Your task to perform on an android device: turn off airplane mode Image 0: 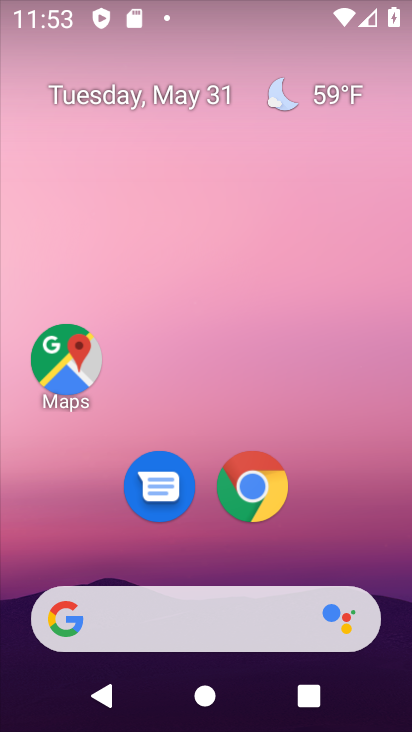
Step 0: drag from (114, 400) to (195, 173)
Your task to perform on an android device: turn off airplane mode Image 1: 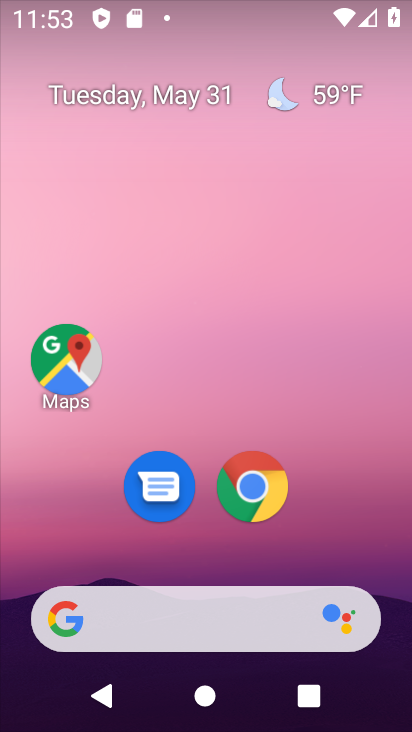
Step 1: drag from (87, 597) to (203, 169)
Your task to perform on an android device: turn off airplane mode Image 2: 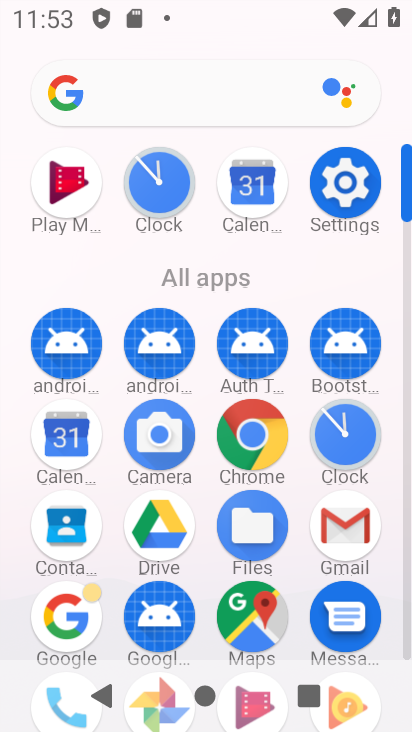
Step 2: drag from (140, 652) to (228, 378)
Your task to perform on an android device: turn off airplane mode Image 3: 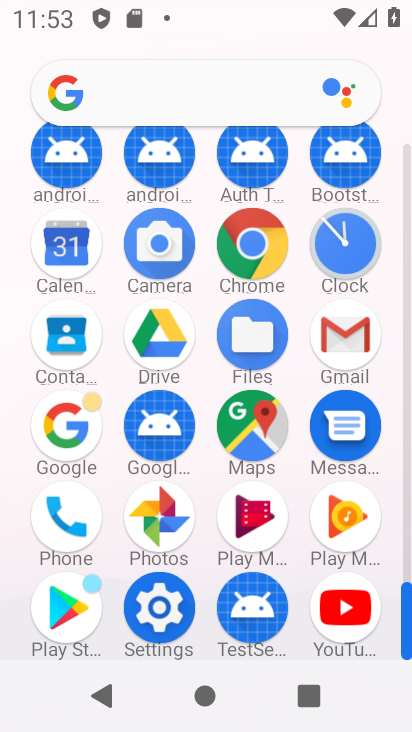
Step 3: click (163, 625)
Your task to perform on an android device: turn off airplane mode Image 4: 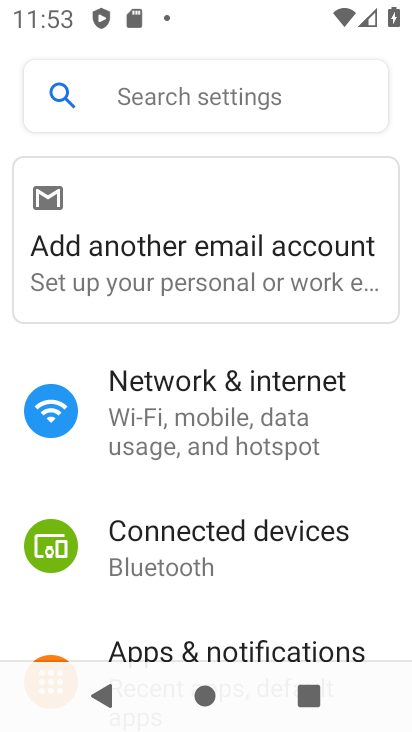
Step 4: click (218, 450)
Your task to perform on an android device: turn off airplane mode Image 5: 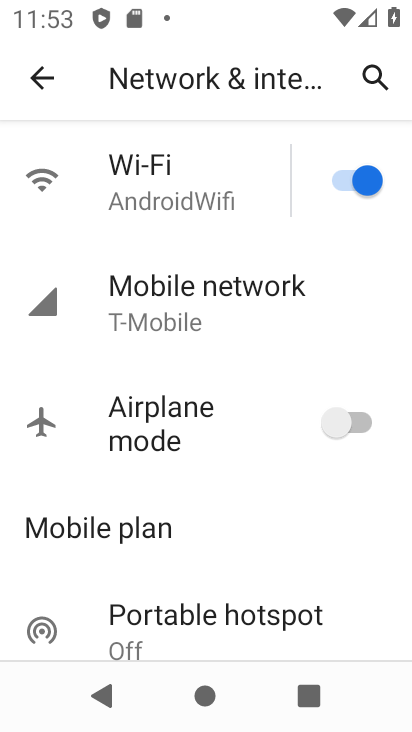
Step 5: task complete